Your task to perform on an android device: Open network settings Image 0: 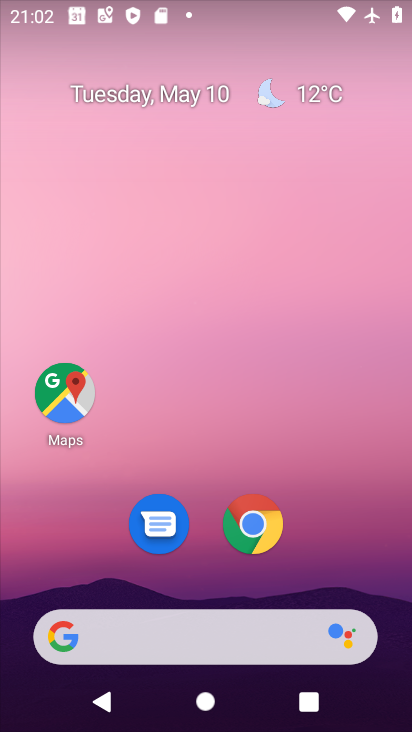
Step 0: drag from (355, 508) to (305, 45)
Your task to perform on an android device: Open network settings Image 1: 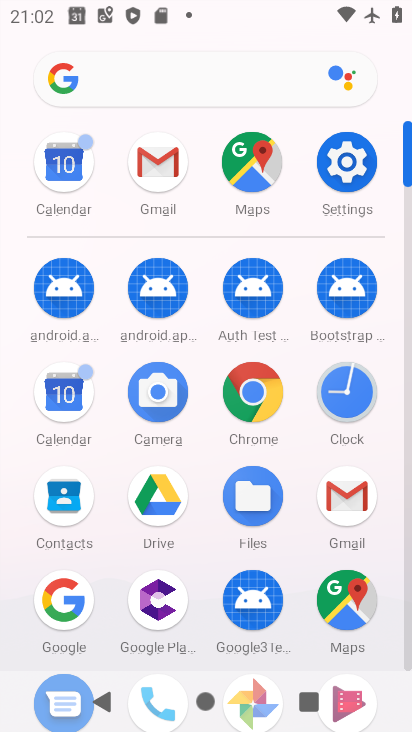
Step 1: click (347, 168)
Your task to perform on an android device: Open network settings Image 2: 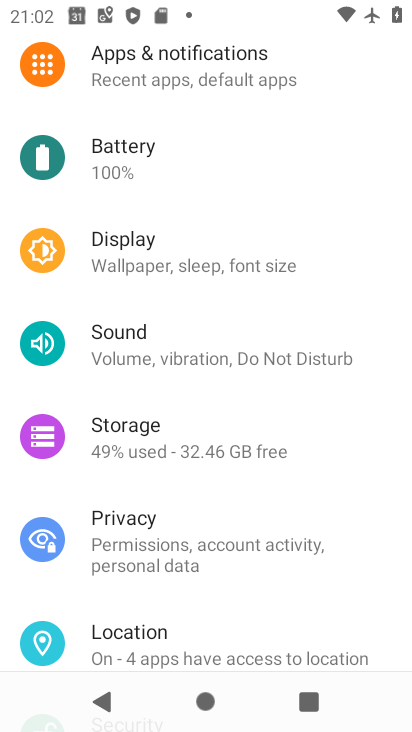
Step 2: drag from (223, 163) to (233, 587)
Your task to perform on an android device: Open network settings Image 3: 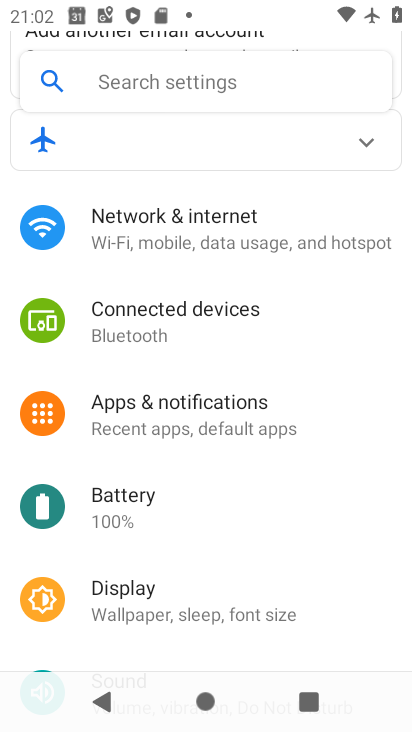
Step 3: click (231, 236)
Your task to perform on an android device: Open network settings Image 4: 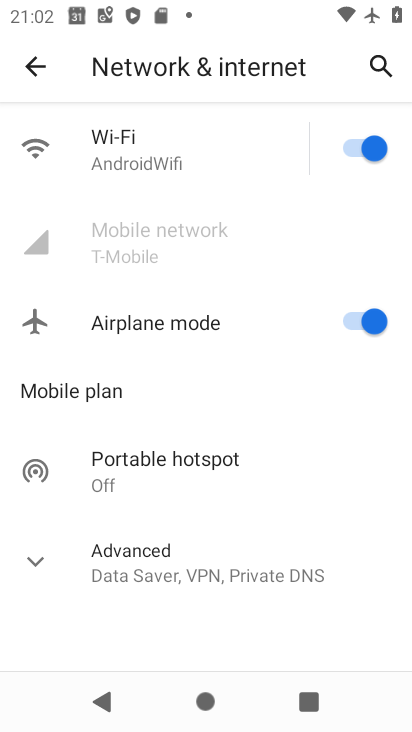
Step 4: task complete